Your task to perform on an android device: Go to CNN.com Image 0: 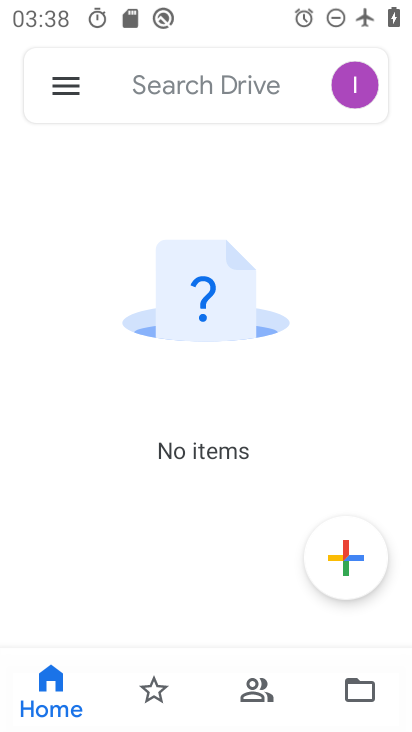
Step 0: press home button
Your task to perform on an android device: Go to CNN.com Image 1: 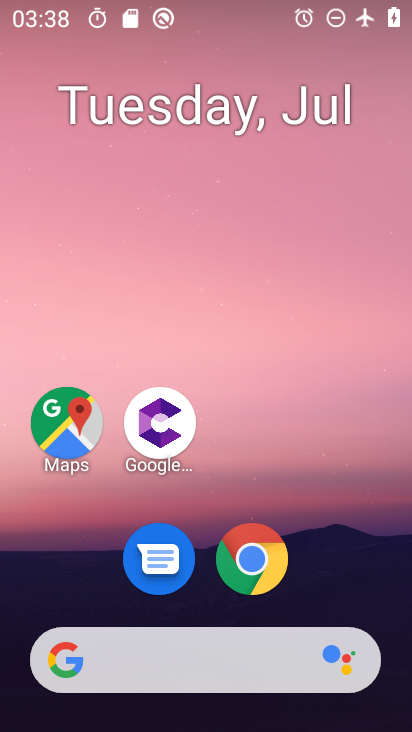
Step 1: drag from (356, 567) to (370, 87)
Your task to perform on an android device: Go to CNN.com Image 2: 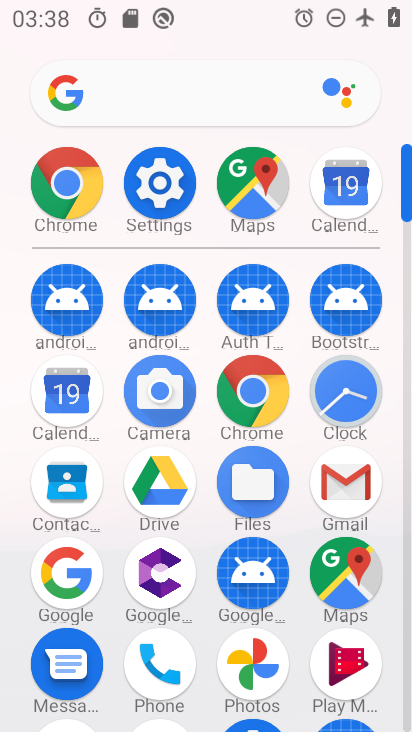
Step 2: click (268, 387)
Your task to perform on an android device: Go to CNN.com Image 3: 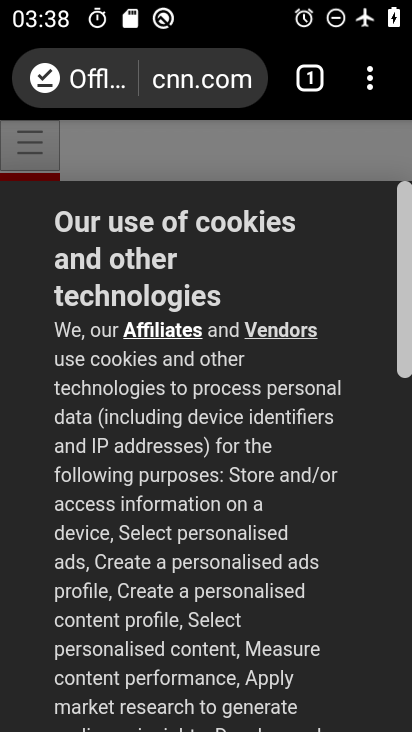
Step 3: task complete